Your task to perform on an android device: all mails in gmail Image 0: 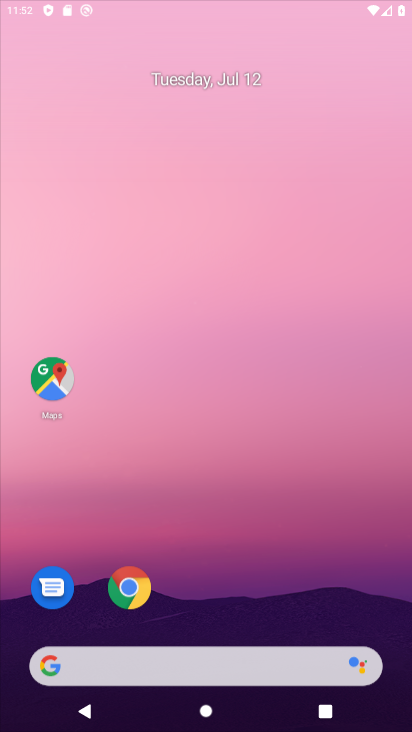
Step 0: drag from (209, 620) to (355, 189)
Your task to perform on an android device: all mails in gmail Image 1: 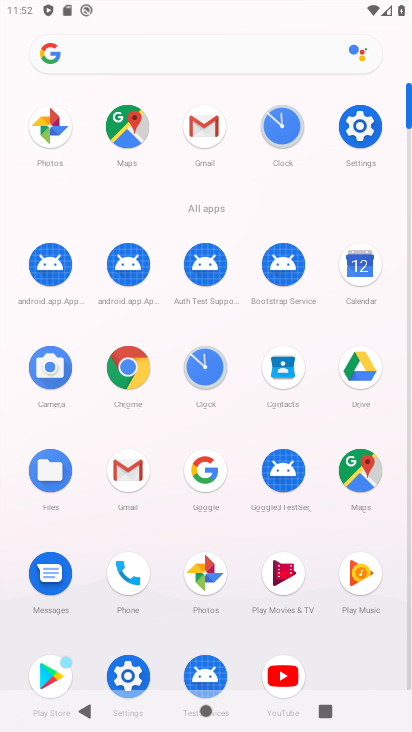
Step 1: drag from (187, 608) to (248, 255)
Your task to perform on an android device: all mails in gmail Image 2: 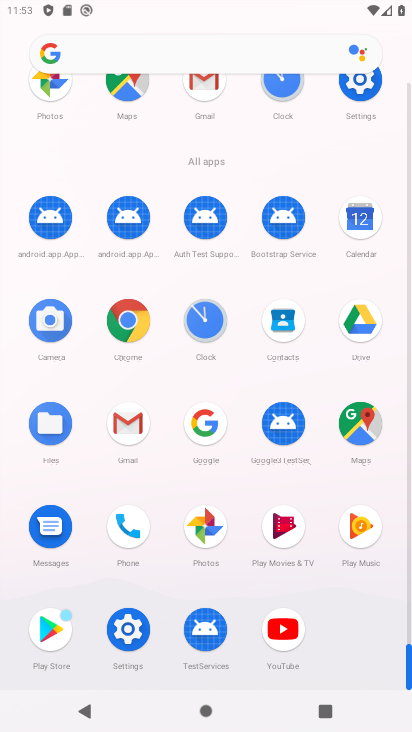
Step 2: click (131, 417)
Your task to perform on an android device: all mails in gmail Image 3: 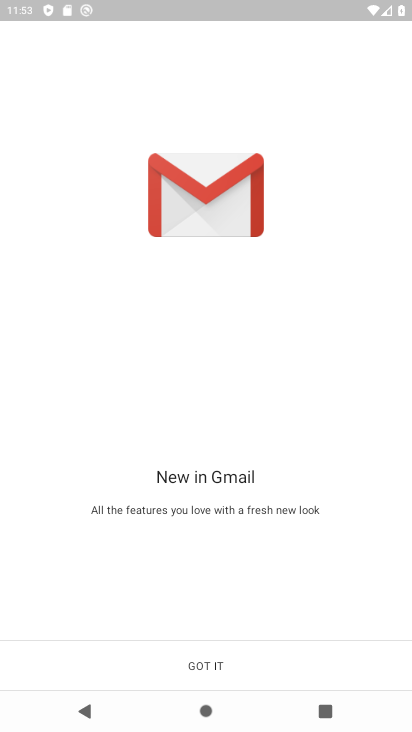
Step 3: click (207, 672)
Your task to perform on an android device: all mails in gmail Image 4: 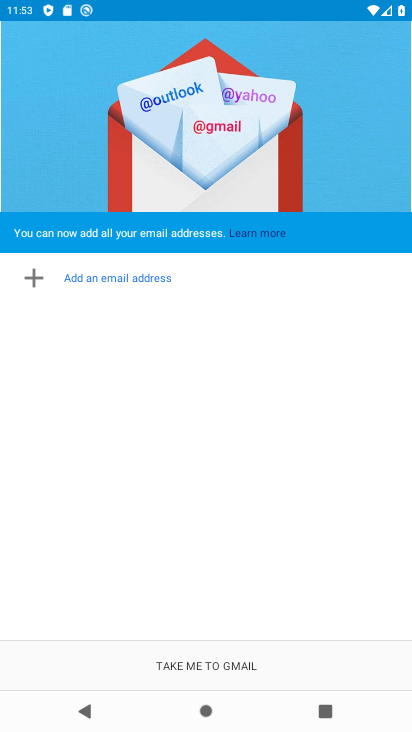
Step 4: click (203, 666)
Your task to perform on an android device: all mails in gmail Image 5: 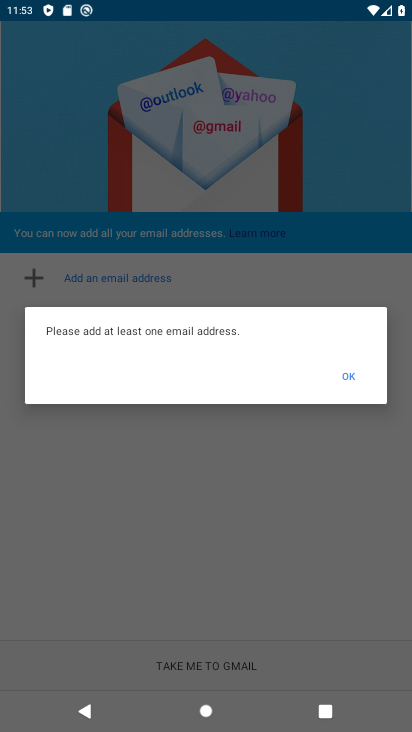
Step 5: task complete